Your task to perform on an android device: Open Chrome and go to settings Image 0: 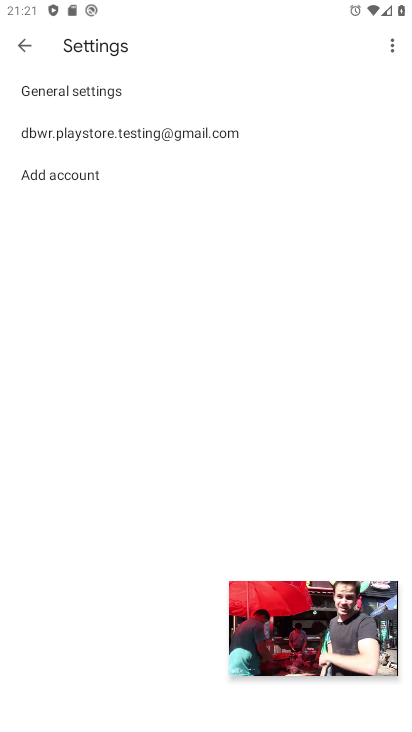
Step 0: press home button
Your task to perform on an android device: Open Chrome and go to settings Image 1: 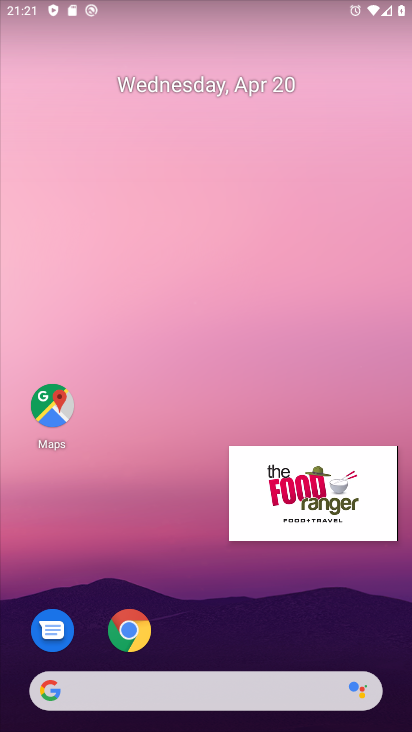
Step 1: click (375, 465)
Your task to perform on an android device: Open Chrome and go to settings Image 2: 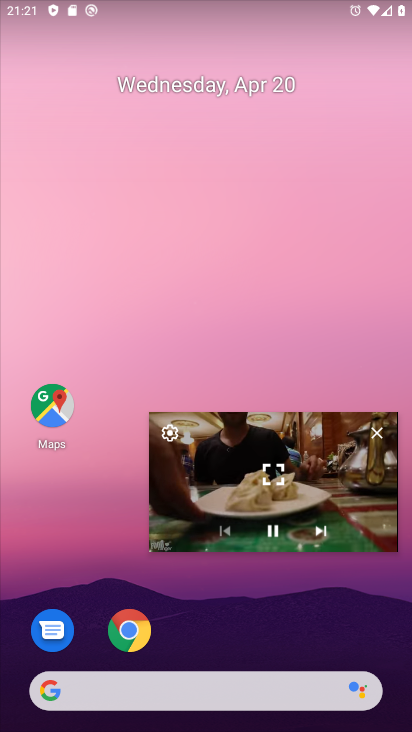
Step 2: click (381, 427)
Your task to perform on an android device: Open Chrome and go to settings Image 3: 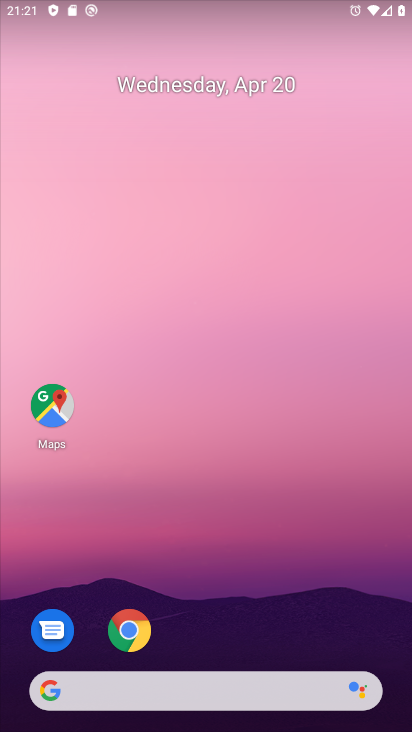
Step 3: click (128, 624)
Your task to perform on an android device: Open Chrome and go to settings Image 4: 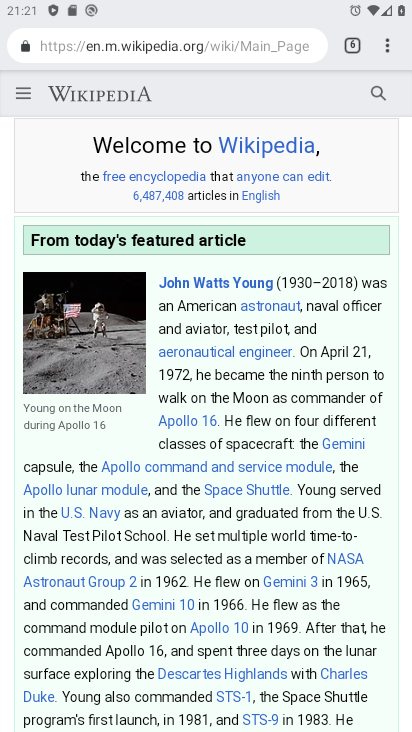
Step 4: click (379, 41)
Your task to perform on an android device: Open Chrome and go to settings Image 5: 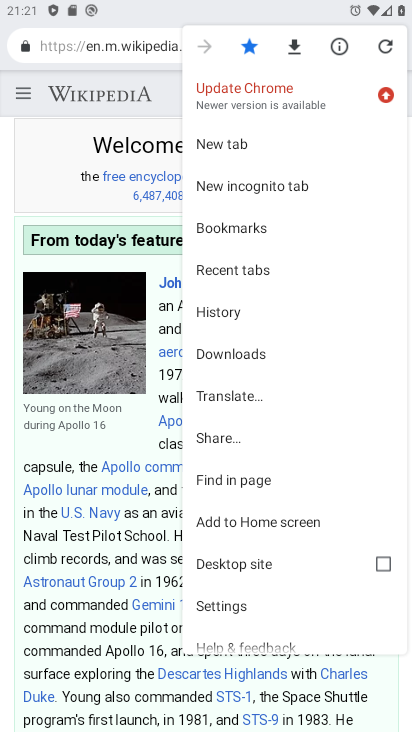
Step 5: click (237, 604)
Your task to perform on an android device: Open Chrome and go to settings Image 6: 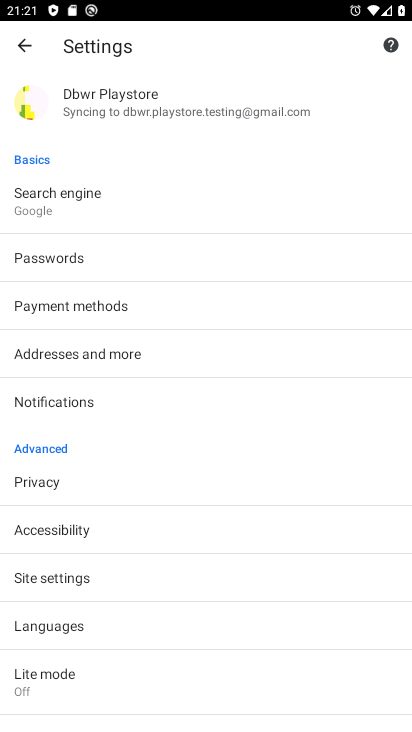
Step 6: task complete